Your task to perform on an android device: open device folders in google photos Image 0: 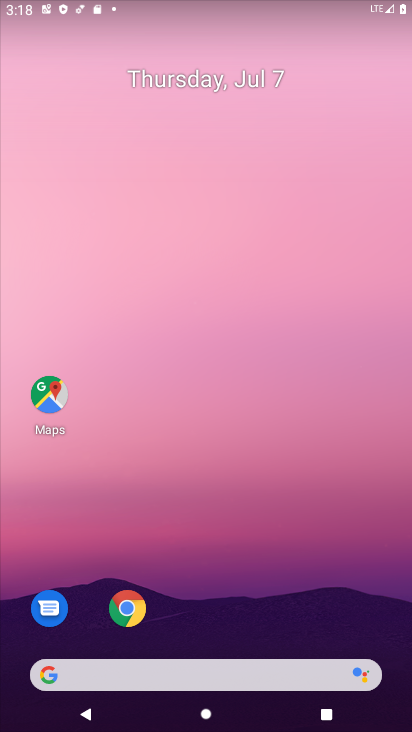
Step 0: drag from (337, 606) to (286, 3)
Your task to perform on an android device: open device folders in google photos Image 1: 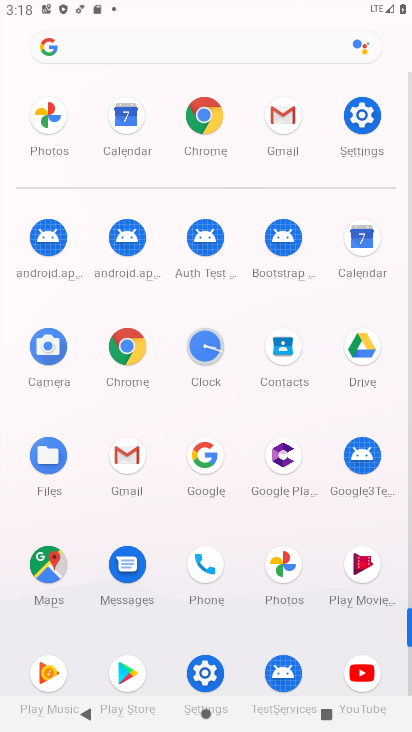
Step 1: click (283, 563)
Your task to perform on an android device: open device folders in google photos Image 2: 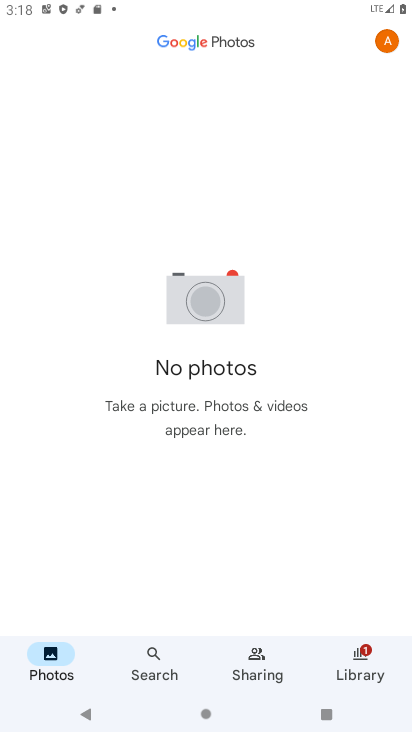
Step 2: click (384, 50)
Your task to perform on an android device: open device folders in google photos Image 3: 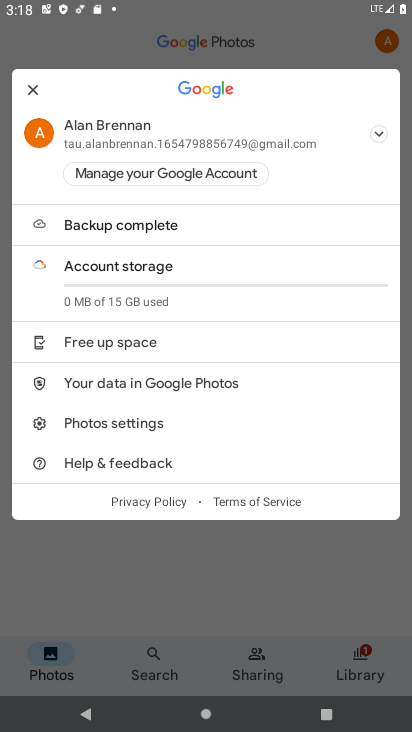
Step 3: click (32, 87)
Your task to perform on an android device: open device folders in google photos Image 4: 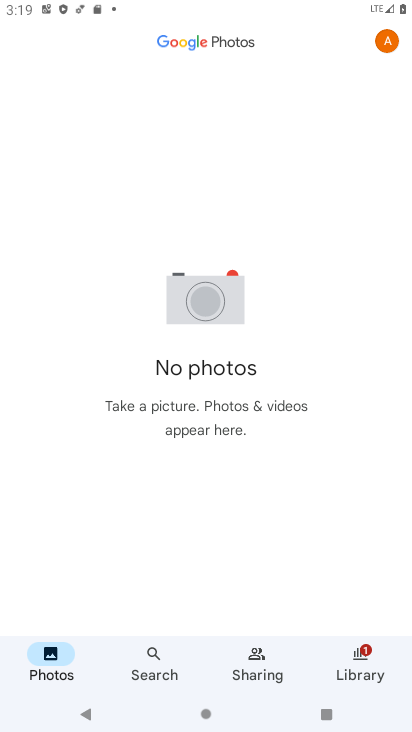
Step 4: task complete